Your task to perform on an android device: Go to Amazon Image 0: 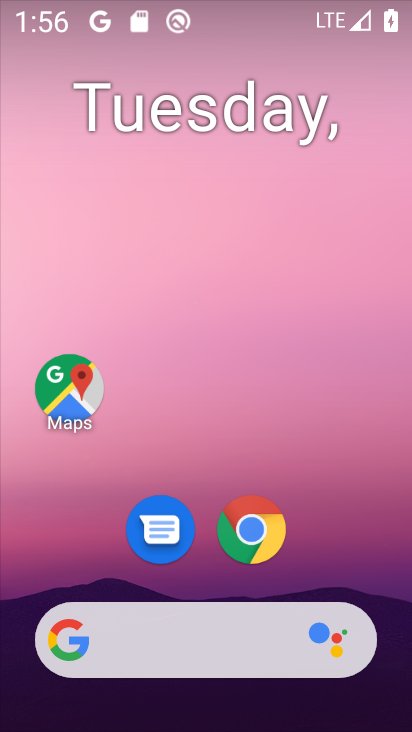
Step 0: click (251, 532)
Your task to perform on an android device: Go to Amazon Image 1: 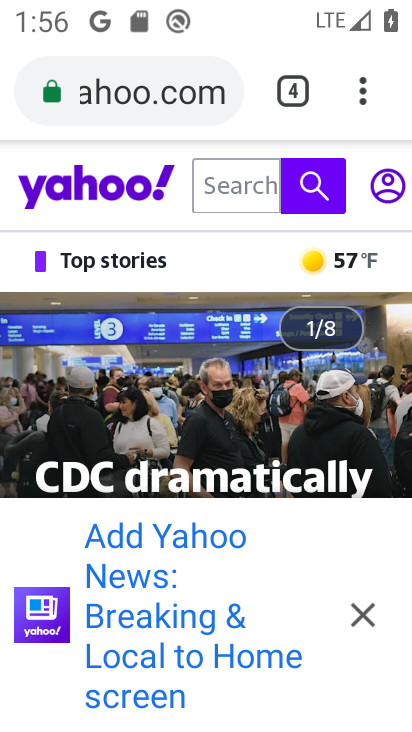
Step 1: press home button
Your task to perform on an android device: Go to Amazon Image 2: 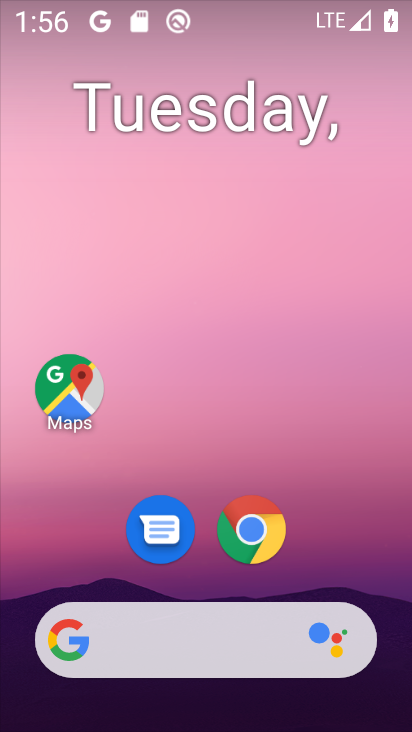
Step 2: click (254, 524)
Your task to perform on an android device: Go to Amazon Image 3: 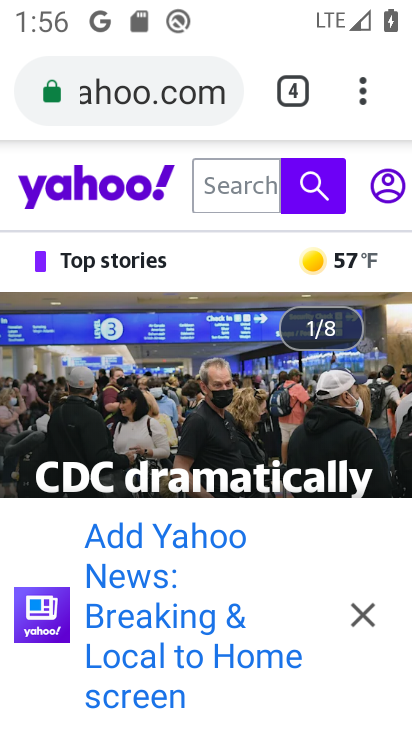
Step 3: click (298, 84)
Your task to perform on an android device: Go to Amazon Image 4: 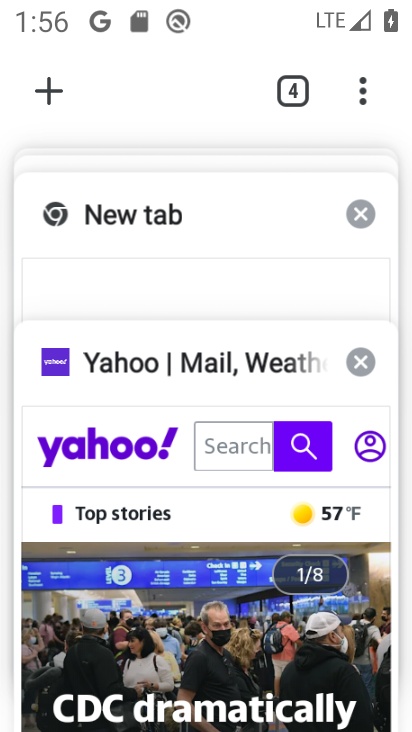
Step 4: click (362, 354)
Your task to perform on an android device: Go to Amazon Image 5: 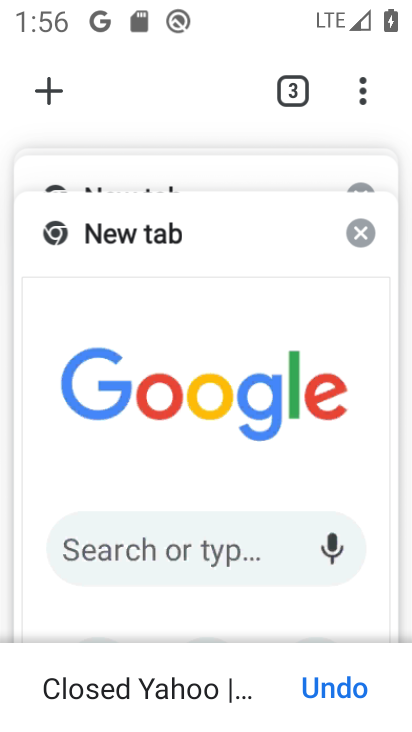
Step 5: click (355, 227)
Your task to perform on an android device: Go to Amazon Image 6: 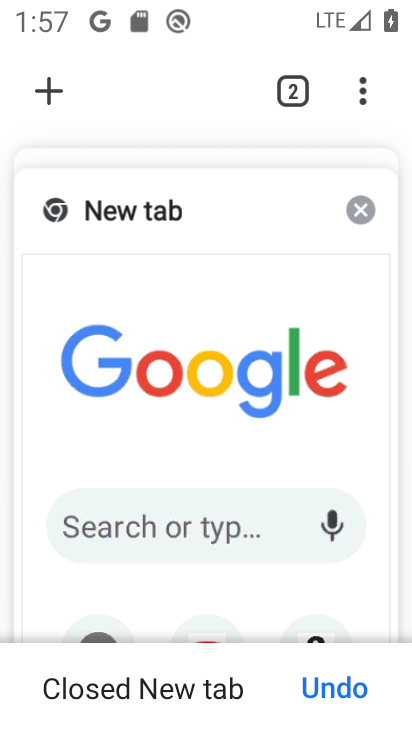
Step 6: click (361, 211)
Your task to perform on an android device: Go to Amazon Image 7: 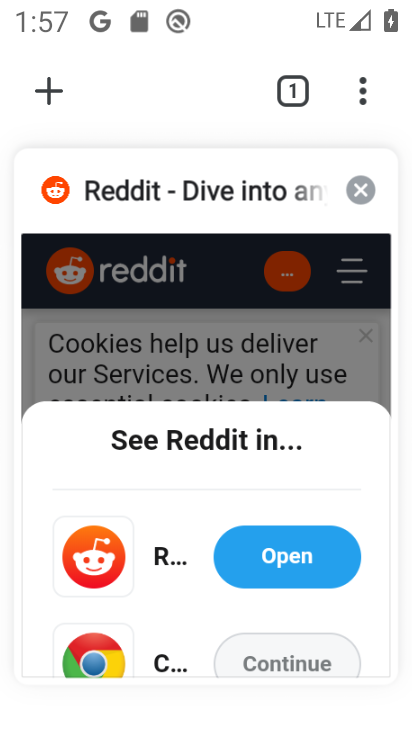
Step 7: click (362, 186)
Your task to perform on an android device: Go to Amazon Image 8: 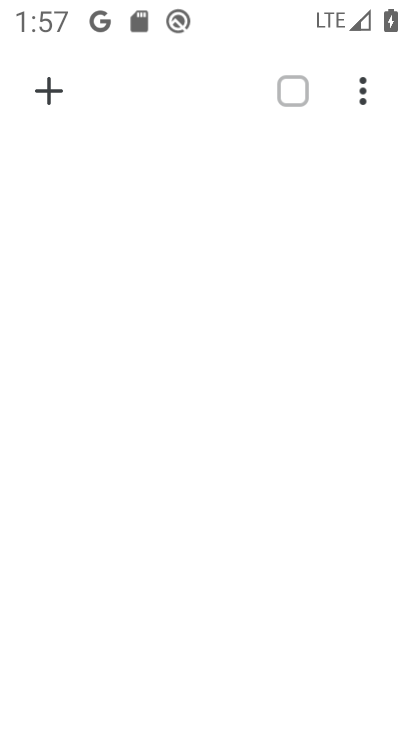
Step 8: click (47, 88)
Your task to perform on an android device: Go to Amazon Image 9: 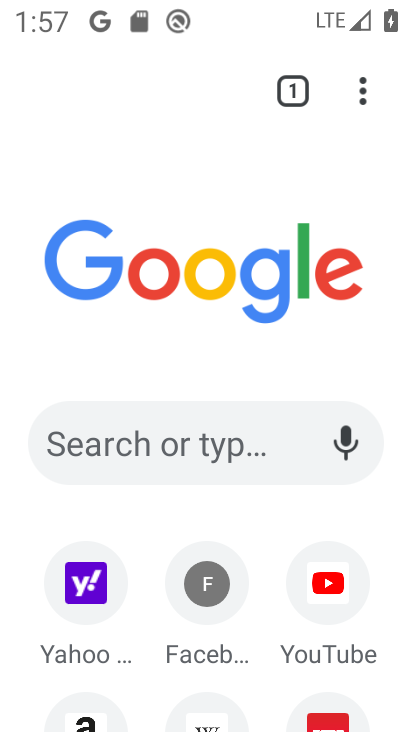
Step 9: click (226, 449)
Your task to perform on an android device: Go to Amazon Image 10: 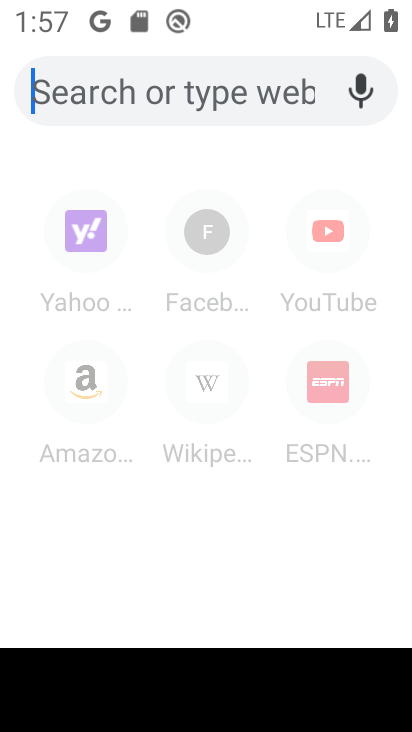
Step 10: type "Amazon"
Your task to perform on an android device: Go to Amazon Image 11: 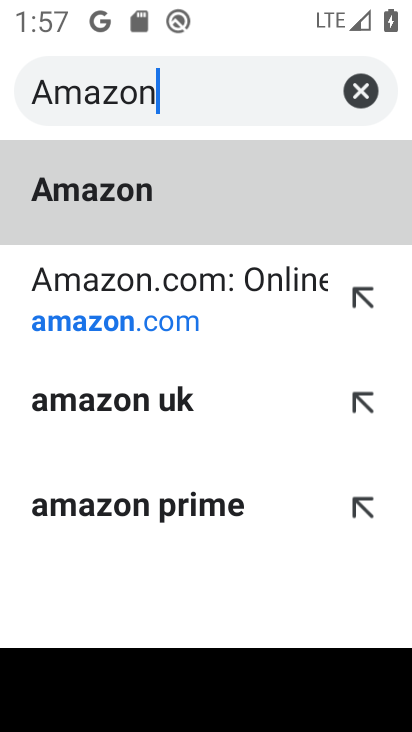
Step 11: click (99, 314)
Your task to perform on an android device: Go to Amazon Image 12: 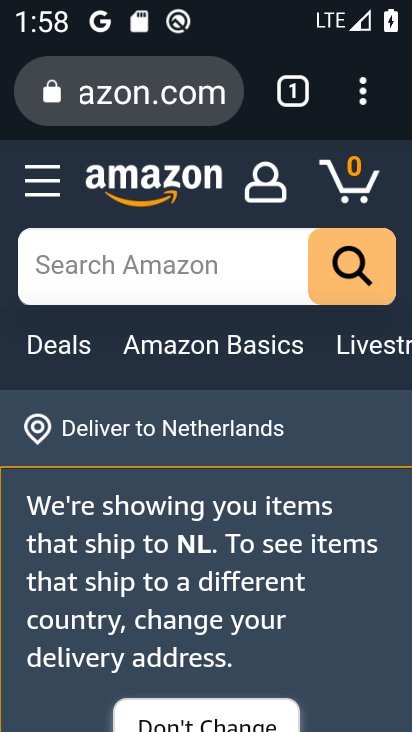
Step 12: task complete